Your task to perform on an android device: toggle pop-ups in chrome Image 0: 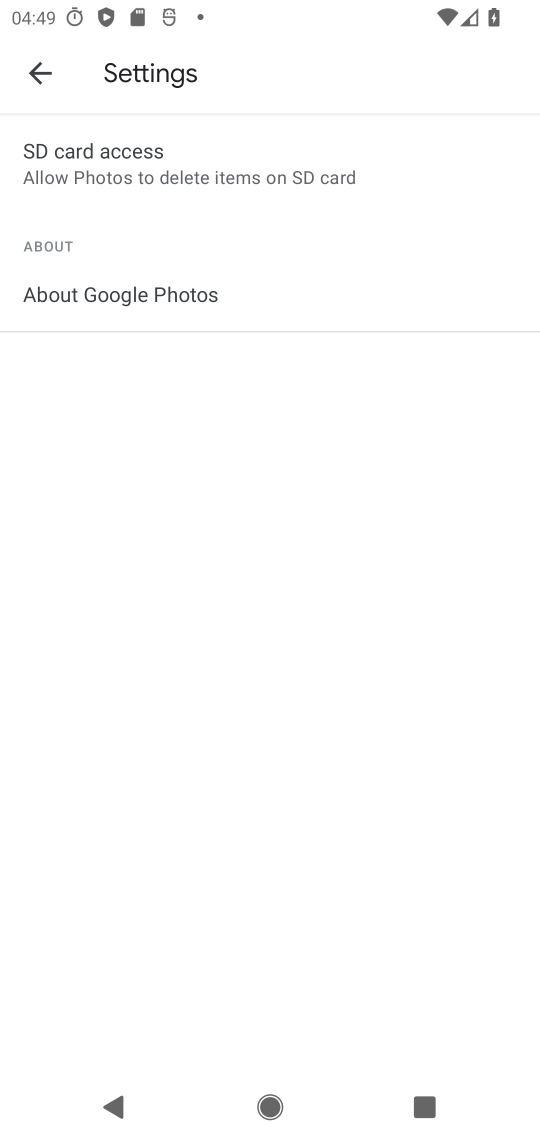
Step 0: press home button
Your task to perform on an android device: toggle pop-ups in chrome Image 1: 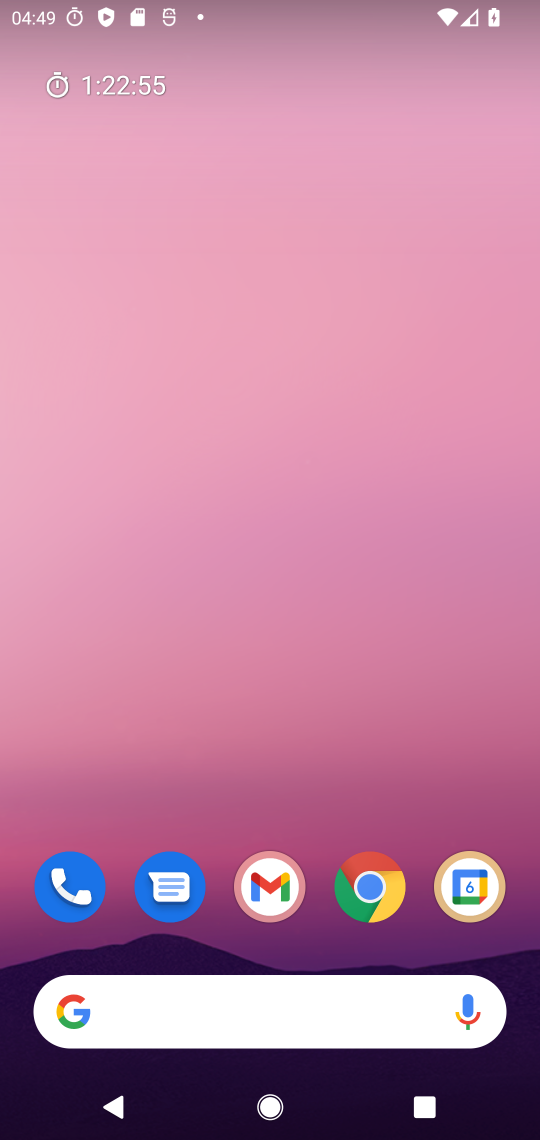
Step 1: drag from (390, 657) to (374, 124)
Your task to perform on an android device: toggle pop-ups in chrome Image 2: 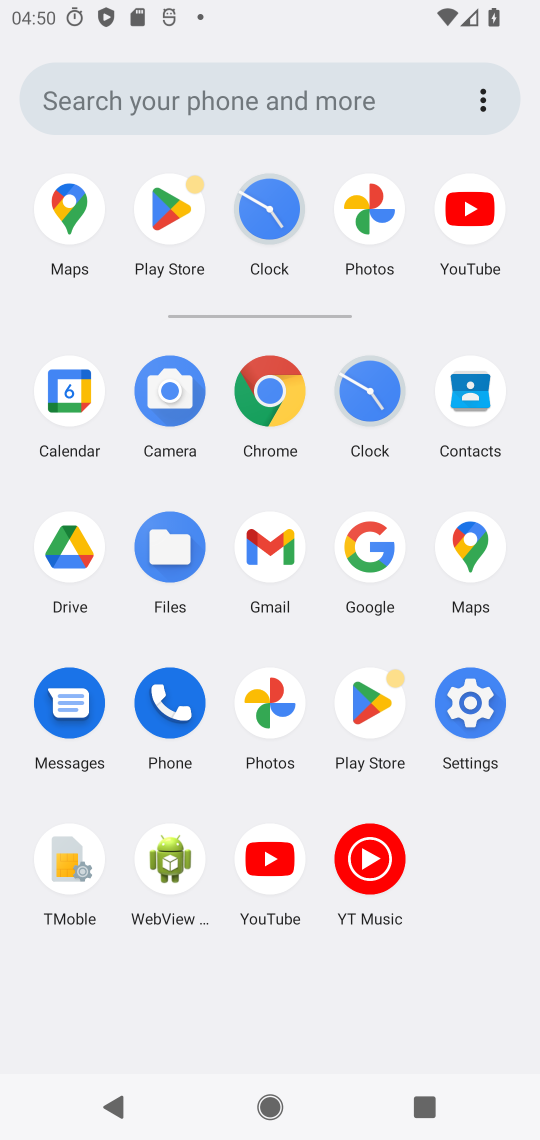
Step 2: click (270, 406)
Your task to perform on an android device: toggle pop-ups in chrome Image 3: 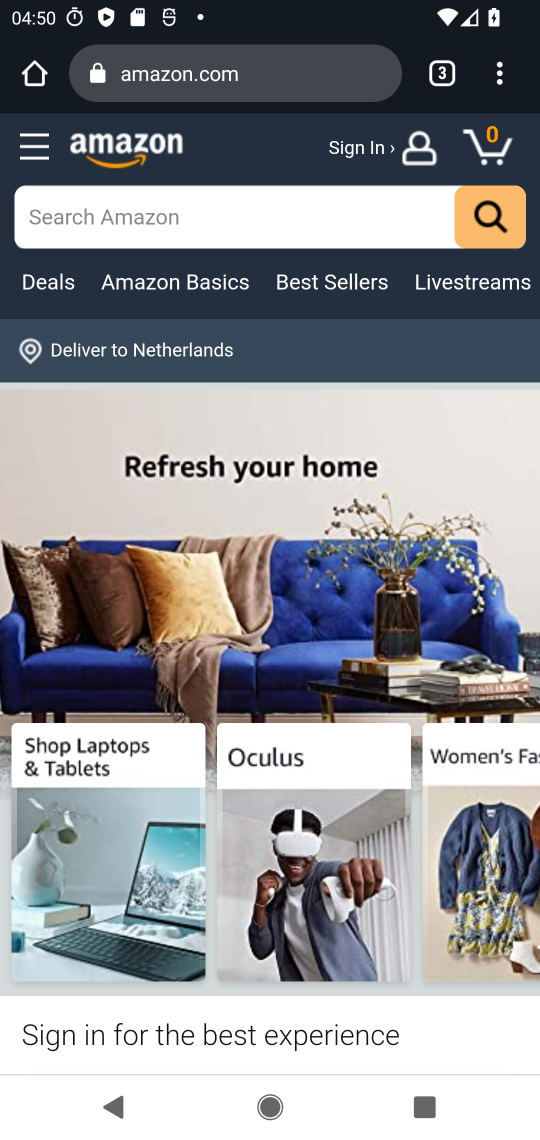
Step 3: click (499, 83)
Your task to perform on an android device: toggle pop-ups in chrome Image 4: 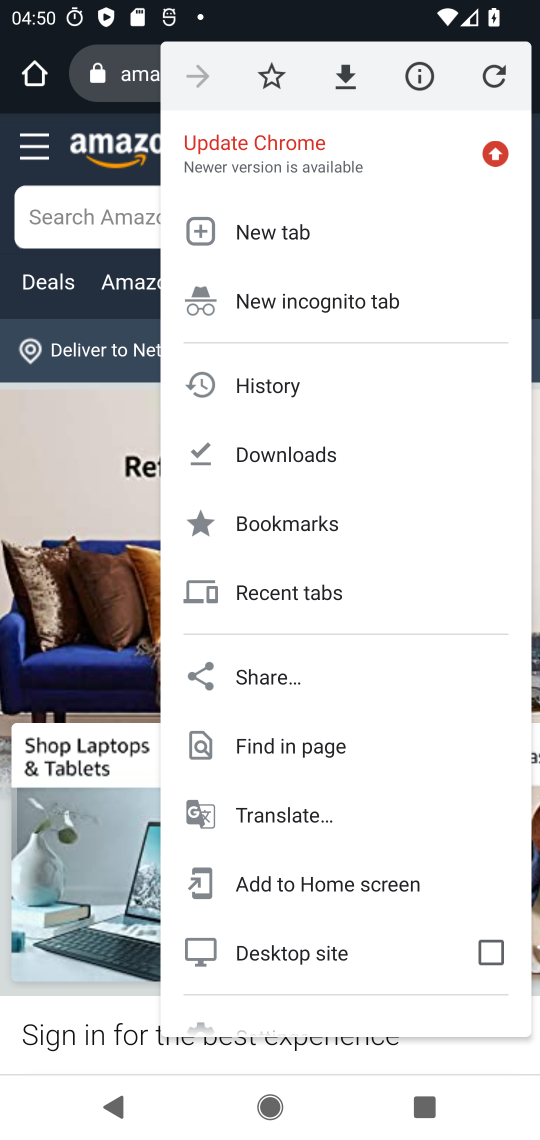
Step 4: drag from (436, 642) to (454, 387)
Your task to perform on an android device: toggle pop-ups in chrome Image 5: 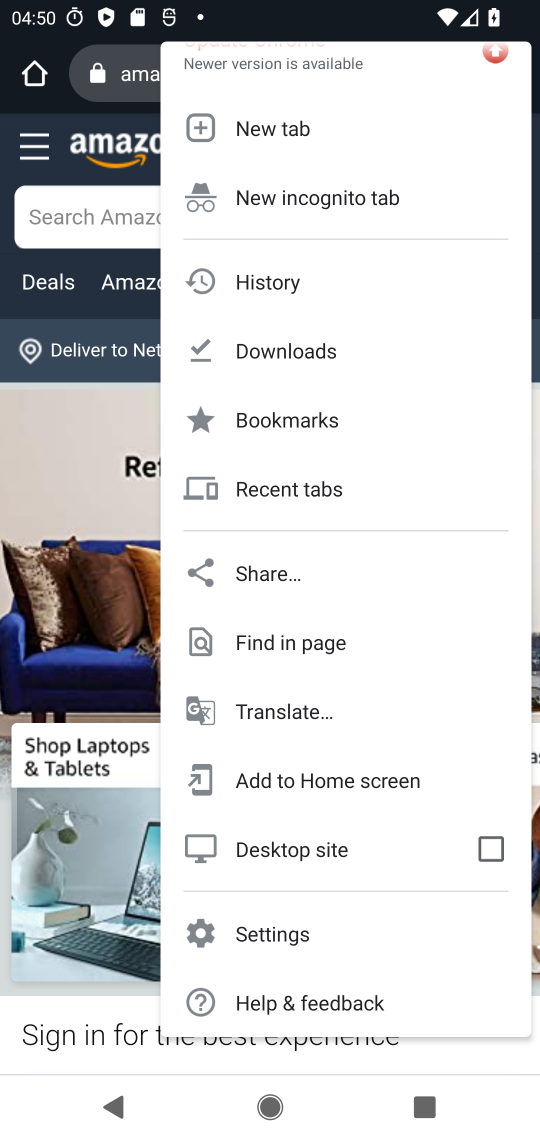
Step 5: click (307, 930)
Your task to perform on an android device: toggle pop-ups in chrome Image 6: 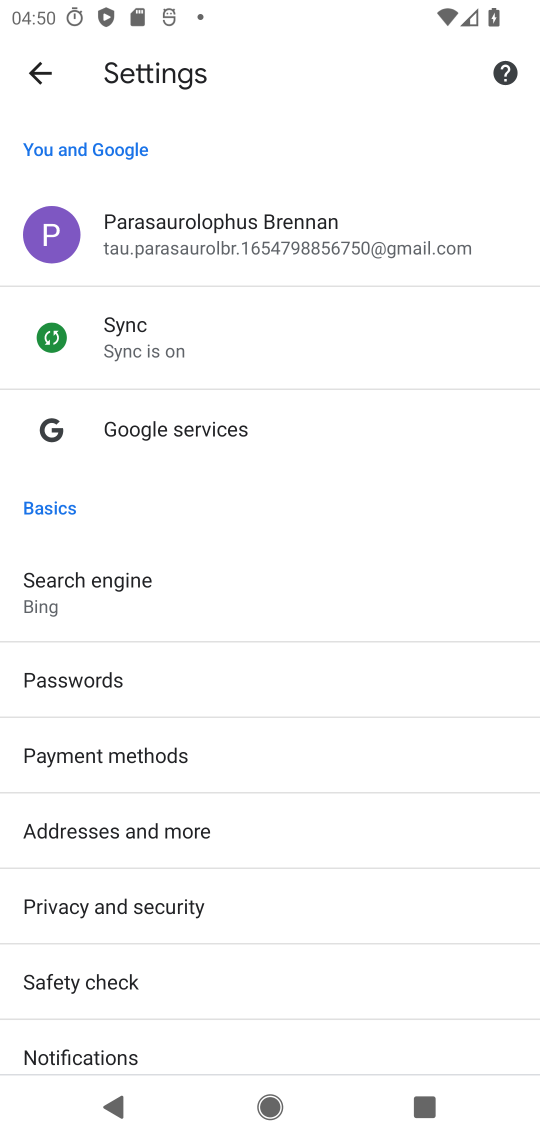
Step 6: drag from (306, 928) to (327, 450)
Your task to perform on an android device: toggle pop-ups in chrome Image 7: 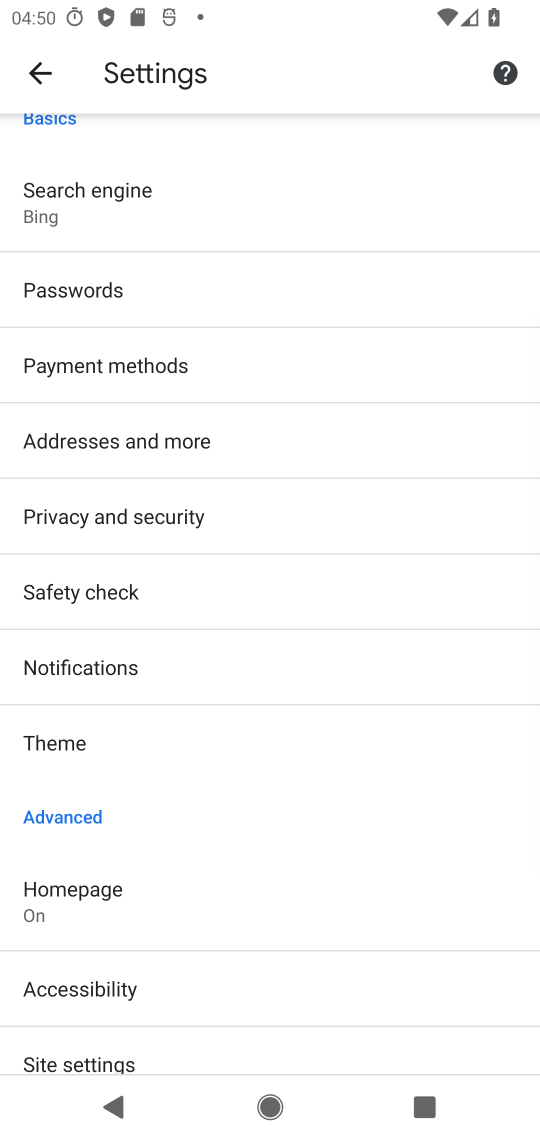
Step 7: drag from (364, 784) to (363, 529)
Your task to perform on an android device: toggle pop-ups in chrome Image 8: 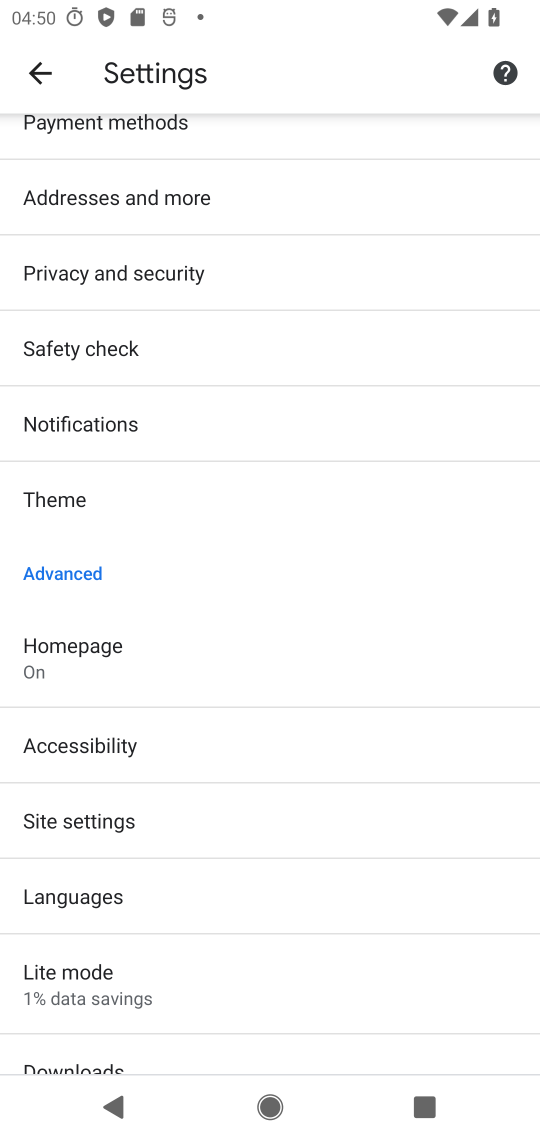
Step 8: drag from (376, 782) to (373, 556)
Your task to perform on an android device: toggle pop-ups in chrome Image 9: 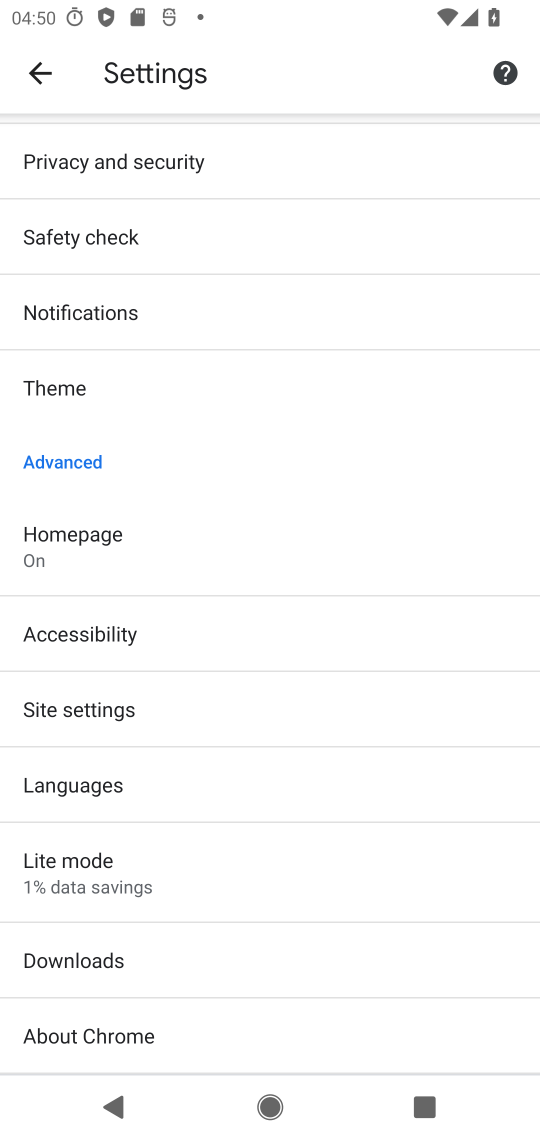
Step 9: click (358, 702)
Your task to perform on an android device: toggle pop-ups in chrome Image 10: 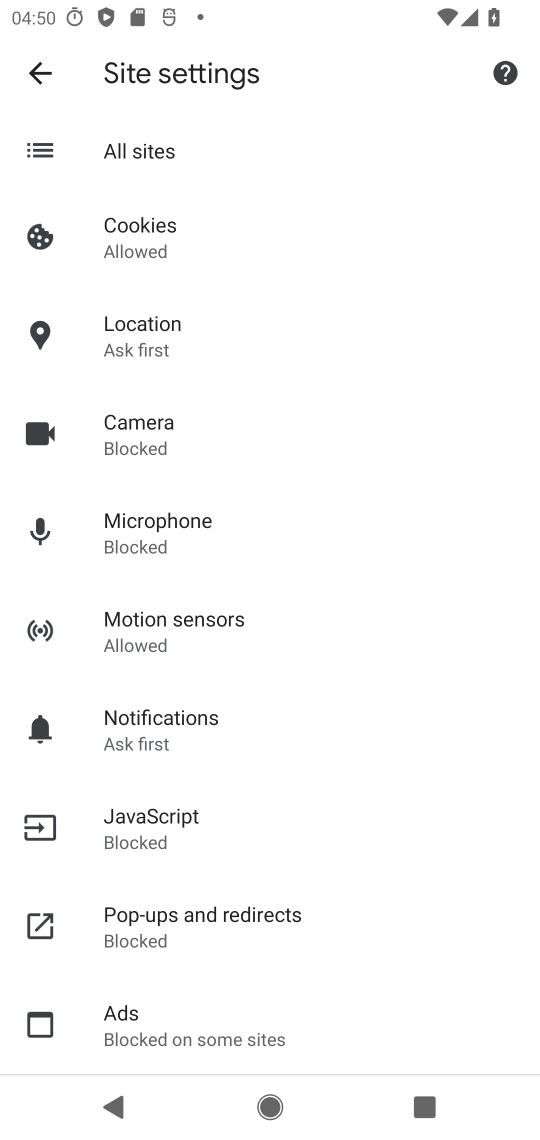
Step 10: drag from (377, 805) to (382, 572)
Your task to perform on an android device: toggle pop-ups in chrome Image 11: 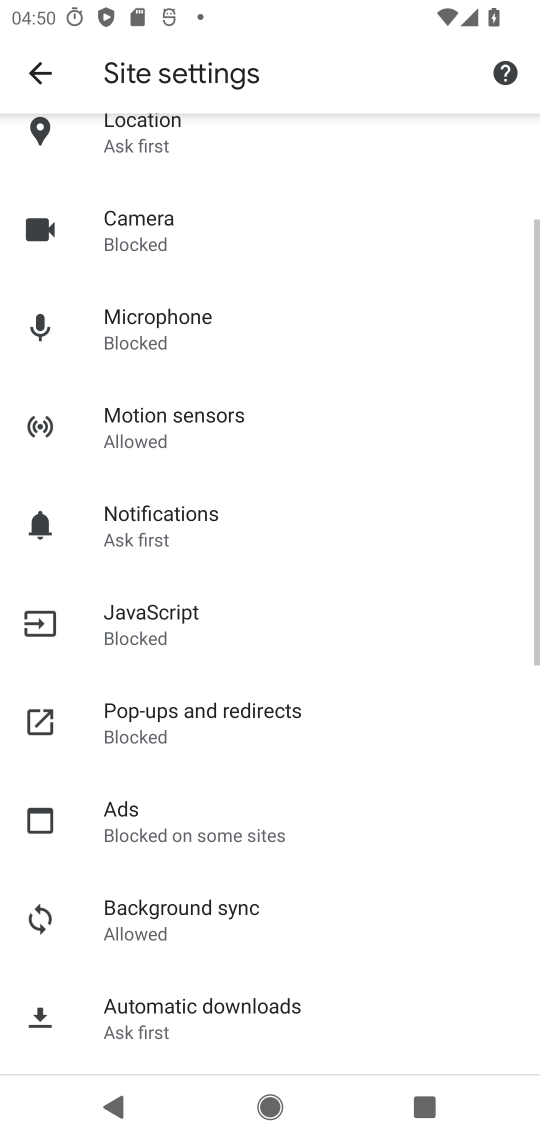
Step 11: drag from (402, 860) to (404, 595)
Your task to perform on an android device: toggle pop-ups in chrome Image 12: 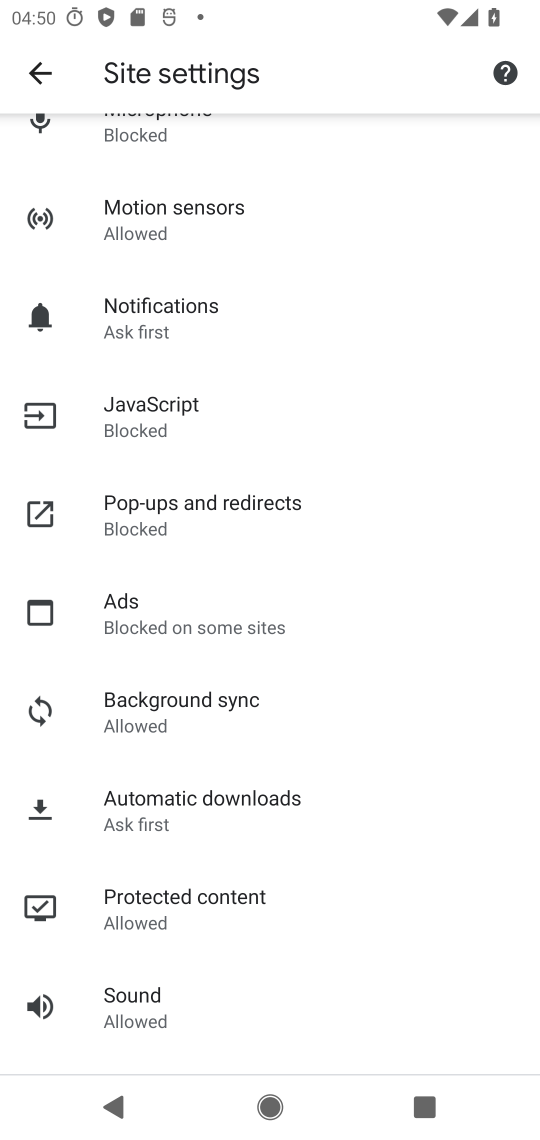
Step 12: click (329, 551)
Your task to perform on an android device: toggle pop-ups in chrome Image 13: 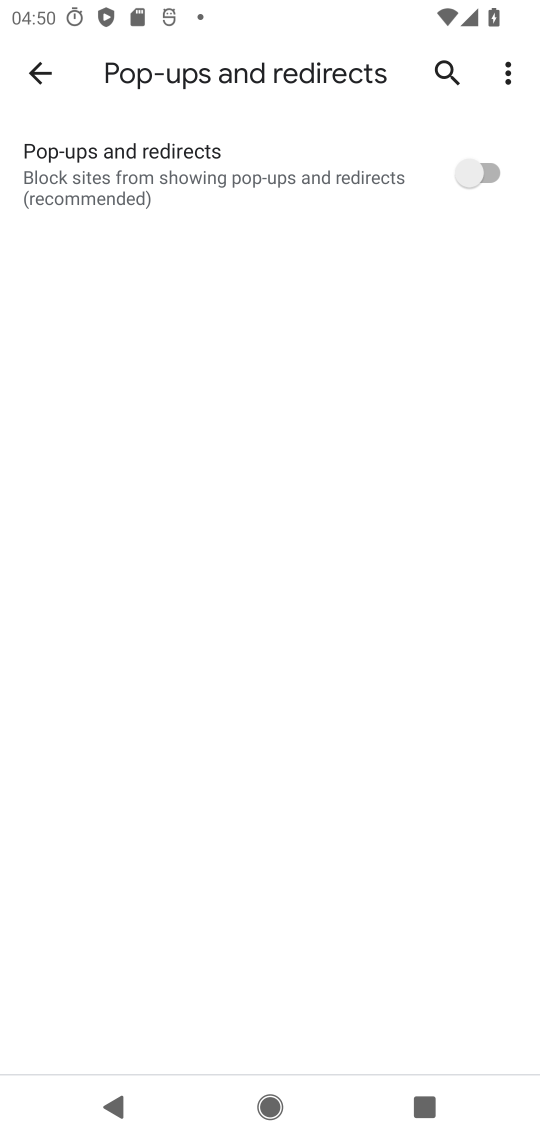
Step 13: click (458, 170)
Your task to perform on an android device: toggle pop-ups in chrome Image 14: 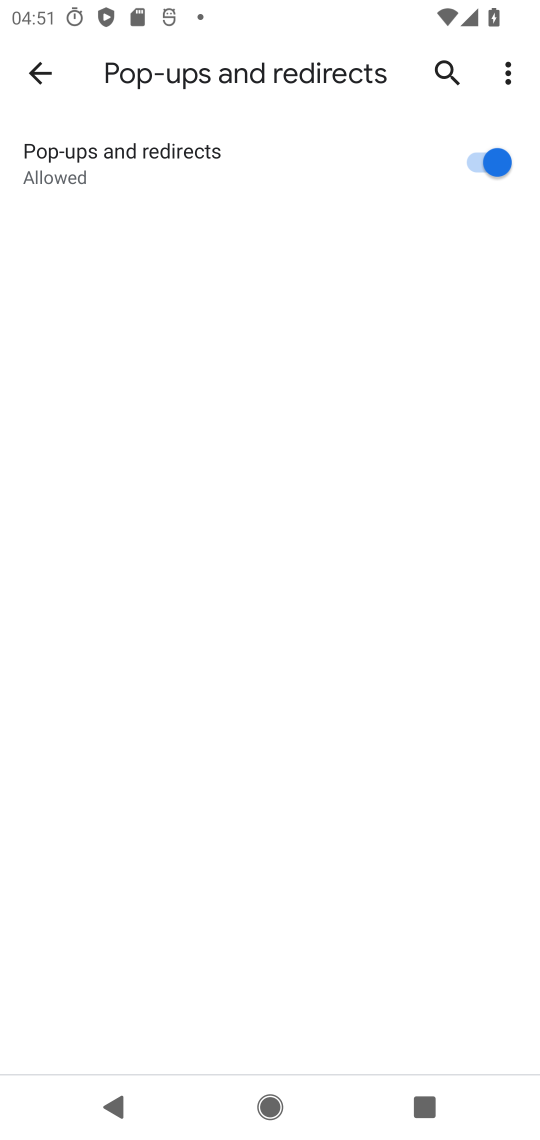
Step 14: task complete